Your task to perform on an android device: star an email in the gmail app Image 0: 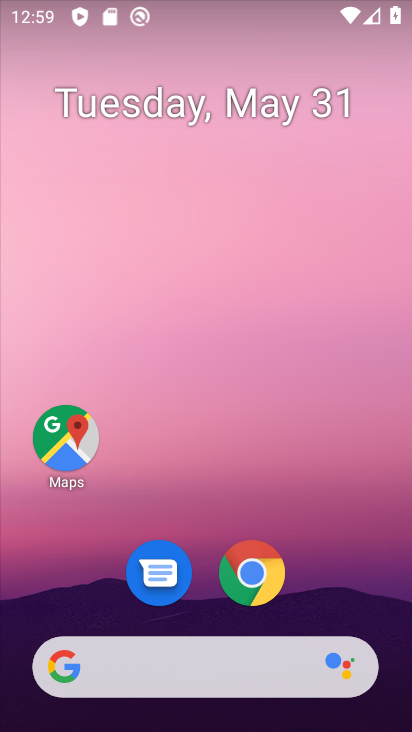
Step 0: drag from (354, 599) to (344, 228)
Your task to perform on an android device: star an email in the gmail app Image 1: 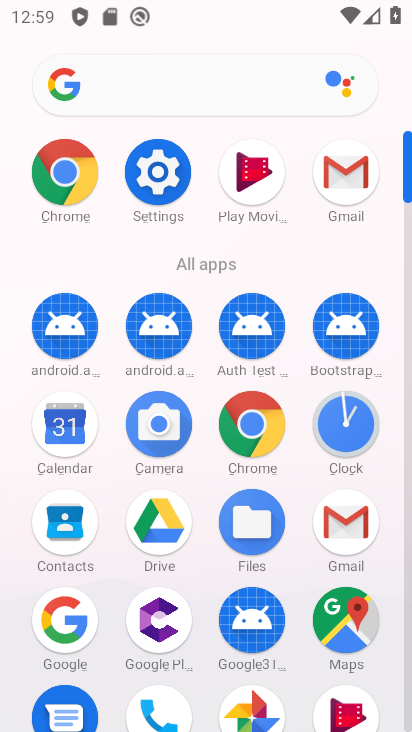
Step 1: click (360, 524)
Your task to perform on an android device: star an email in the gmail app Image 2: 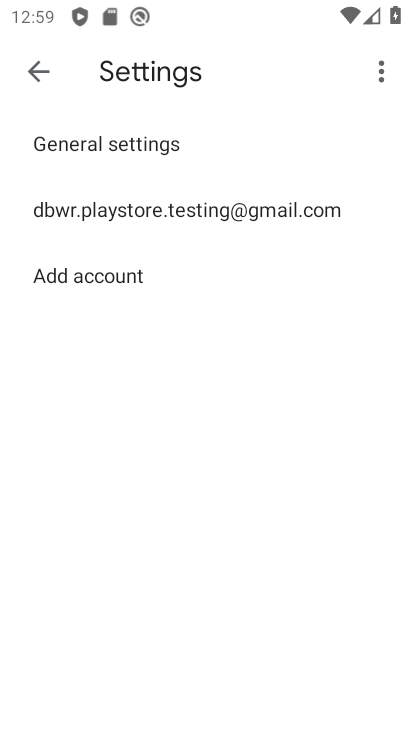
Step 2: click (42, 74)
Your task to perform on an android device: star an email in the gmail app Image 3: 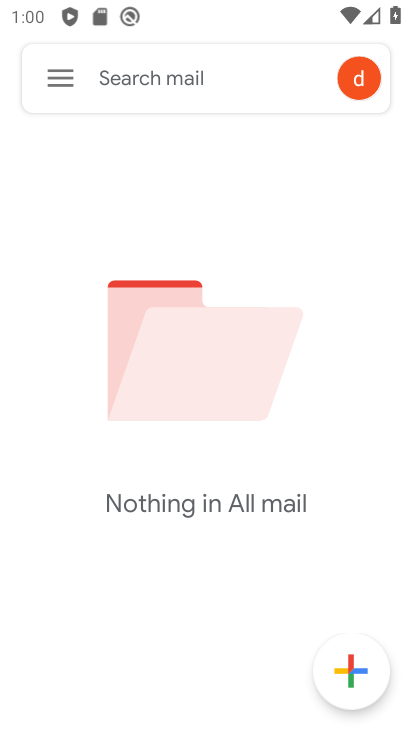
Step 3: click (50, 68)
Your task to perform on an android device: star an email in the gmail app Image 4: 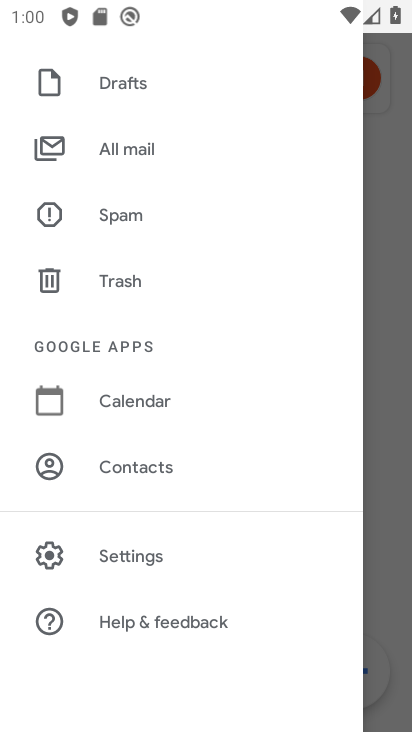
Step 4: drag from (221, 142) to (229, 283)
Your task to perform on an android device: star an email in the gmail app Image 5: 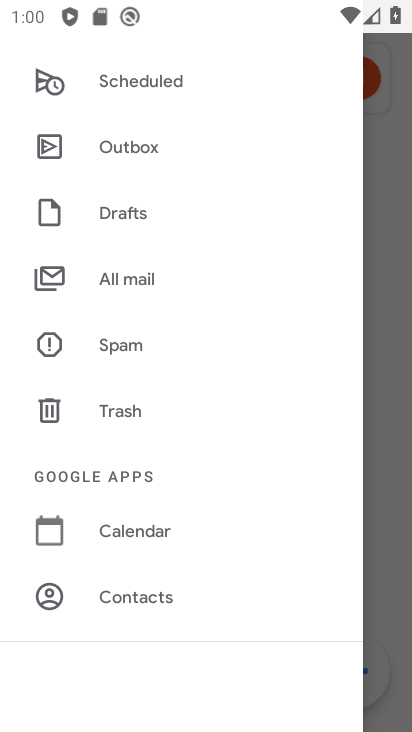
Step 5: drag from (222, 128) to (228, 280)
Your task to perform on an android device: star an email in the gmail app Image 6: 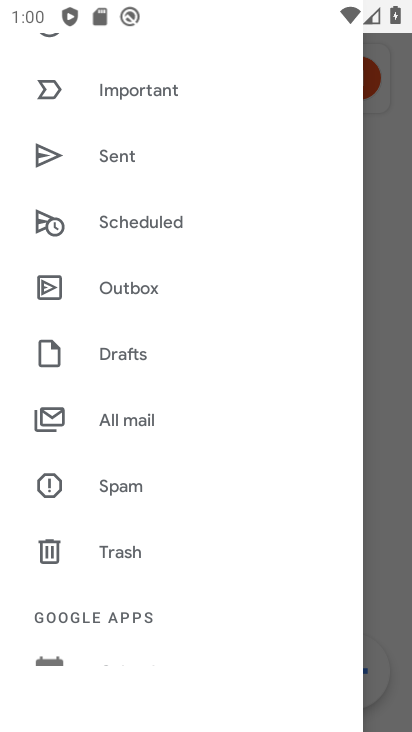
Step 6: drag from (237, 131) to (237, 280)
Your task to perform on an android device: star an email in the gmail app Image 7: 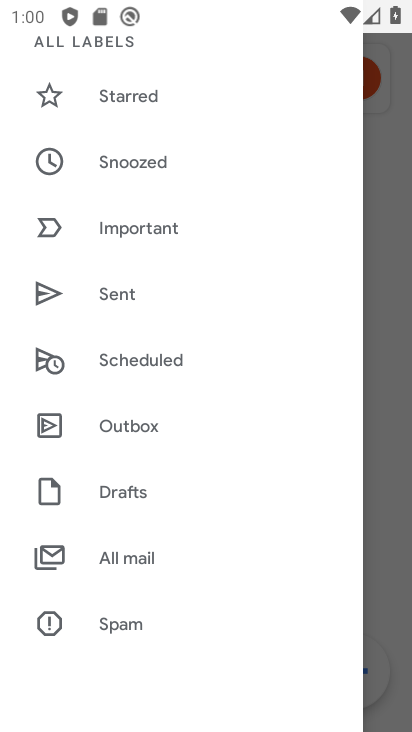
Step 7: drag from (237, 107) to (237, 265)
Your task to perform on an android device: star an email in the gmail app Image 8: 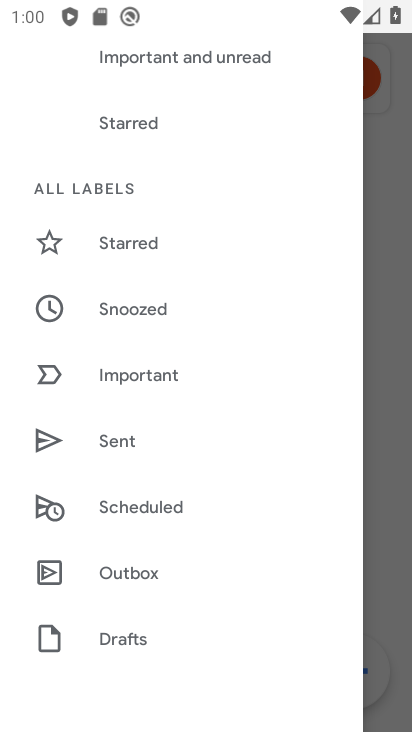
Step 8: drag from (235, 115) to (239, 262)
Your task to perform on an android device: star an email in the gmail app Image 9: 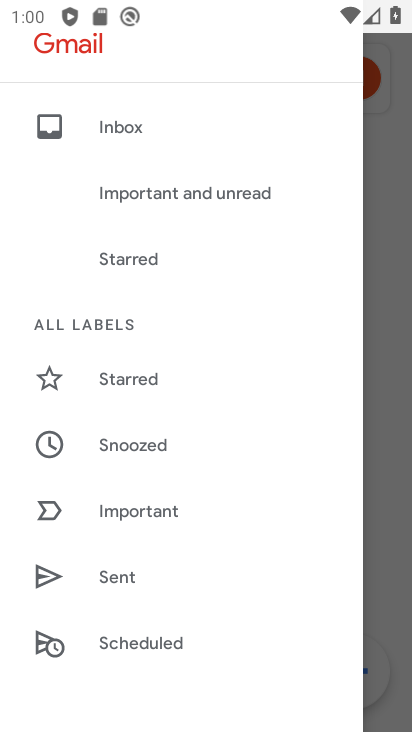
Step 9: click (131, 135)
Your task to perform on an android device: star an email in the gmail app Image 10: 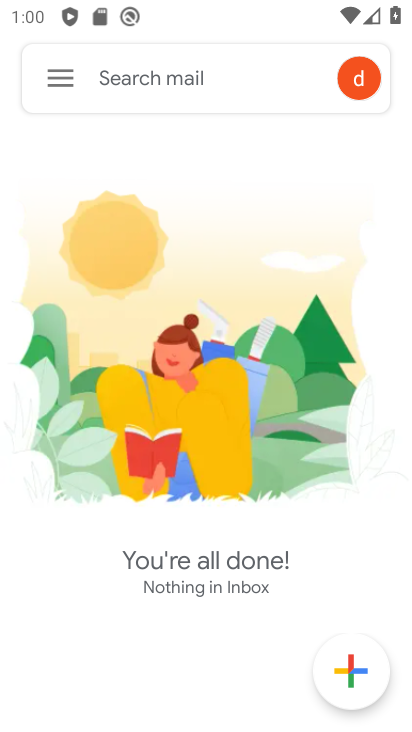
Step 10: task complete